Your task to perform on an android device: turn vacation reply on in the gmail app Image 0: 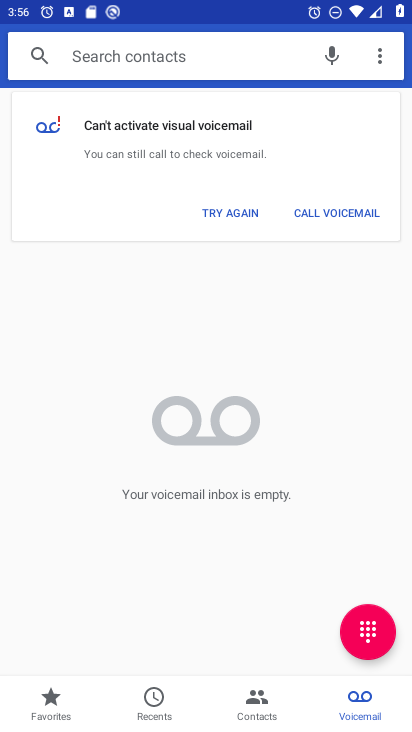
Step 0: press home button
Your task to perform on an android device: turn vacation reply on in the gmail app Image 1: 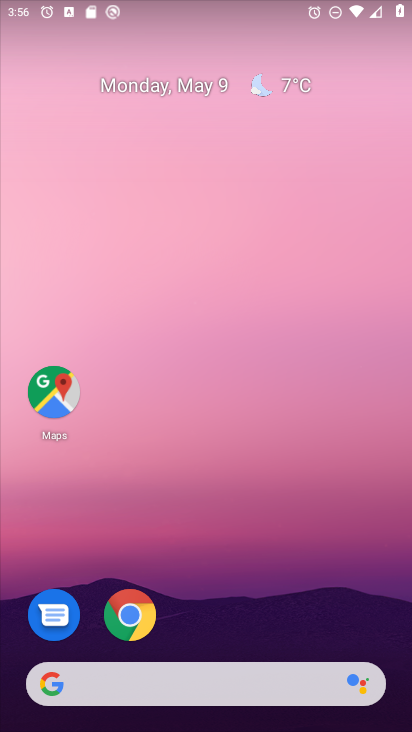
Step 1: drag from (375, 624) to (285, 67)
Your task to perform on an android device: turn vacation reply on in the gmail app Image 2: 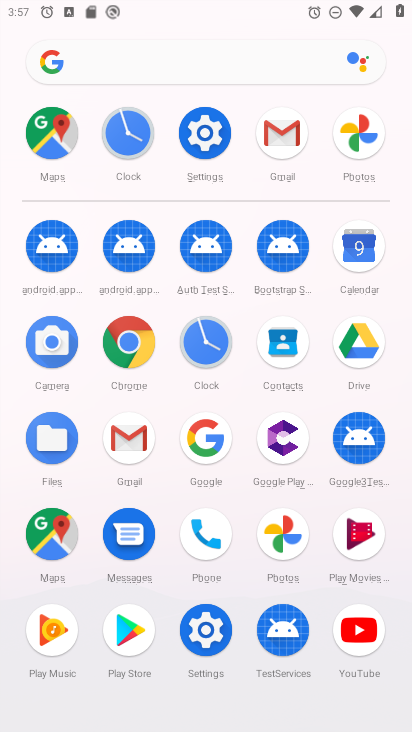
Step 2: click (126, 436)
Your task to perform on an android device: turn vacation reply on in the gmail app Image 3: 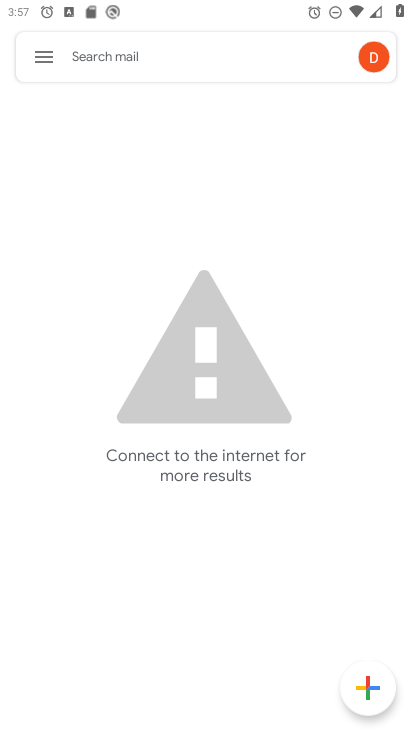
Step 3: click (47, 55)
Your task to perform on an android device: turn vacation reply on in the gmail app Image 4: 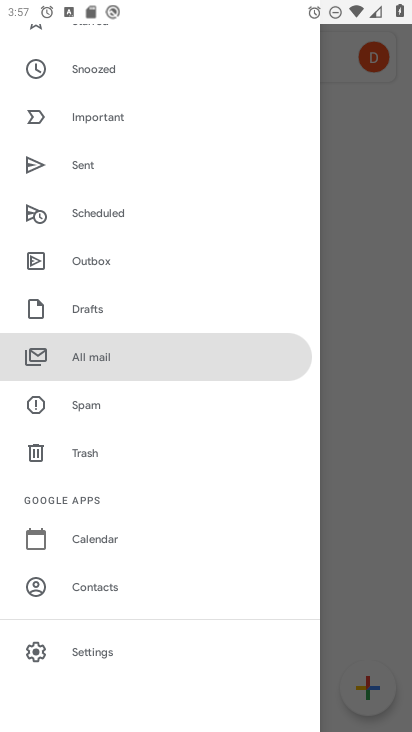
Step 4: click (82, 654)
Your task to perform on an android device: turn vacation reply on in the gmail app Image 5: 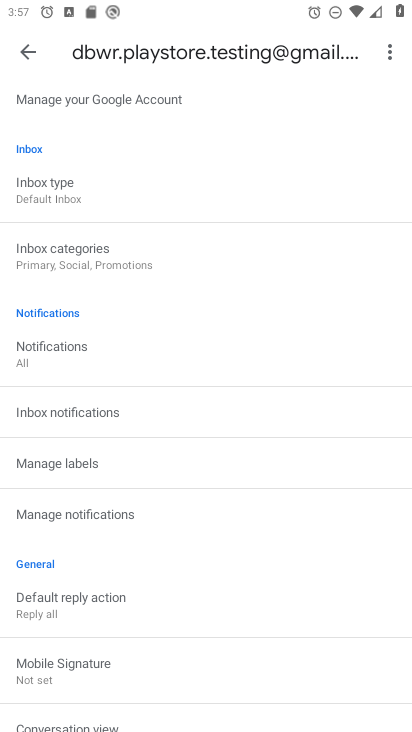
Step 5: drag from (189, 647) to (240, 290)
Your task to perform on an android device: turn vacation reply on in the gmail app Image 6: 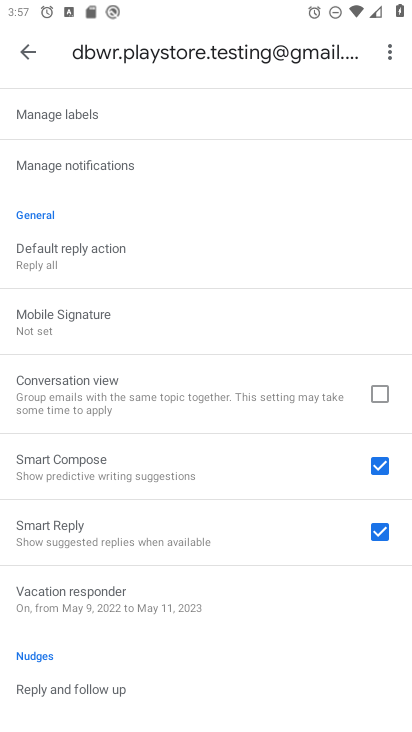
Step 6: click (79, 589)
Your task to perform on an android device: turn vacation reply on in the gmail app Image 7: 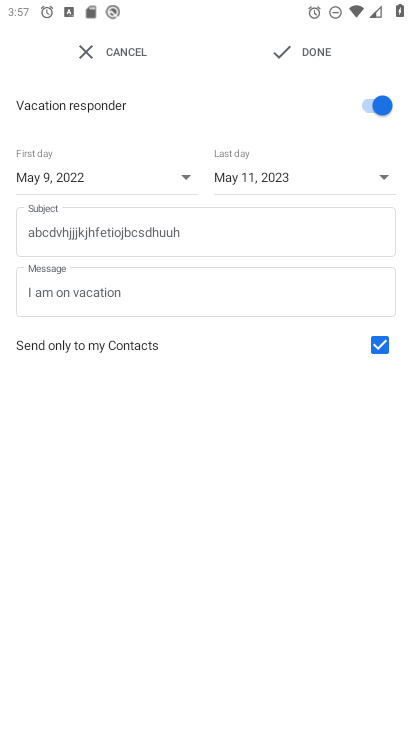
Step 7: task complete